Your task to perform on an android device: How big is a blue whale? Image 0: 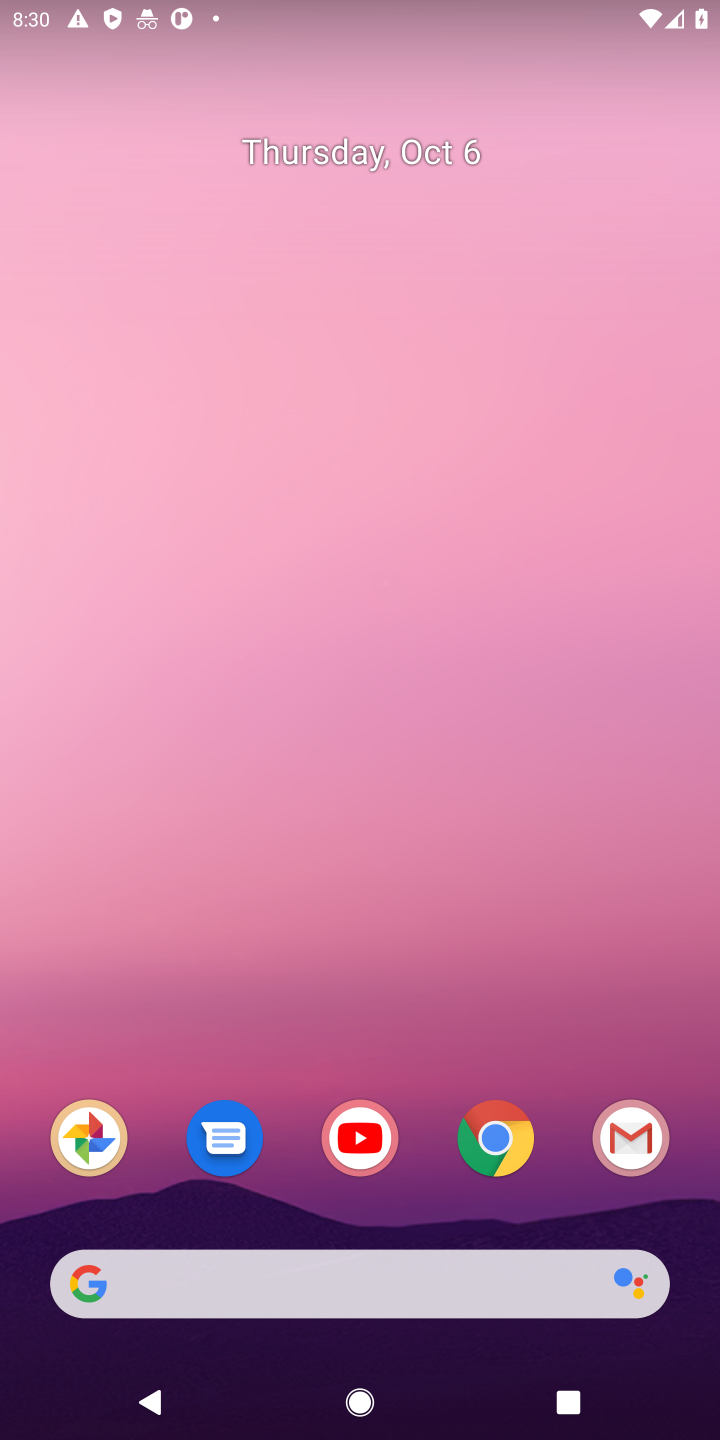
Step 0: click (480, 1136)
Your task to perform on an android device: How big is a blue whale? Image 1: 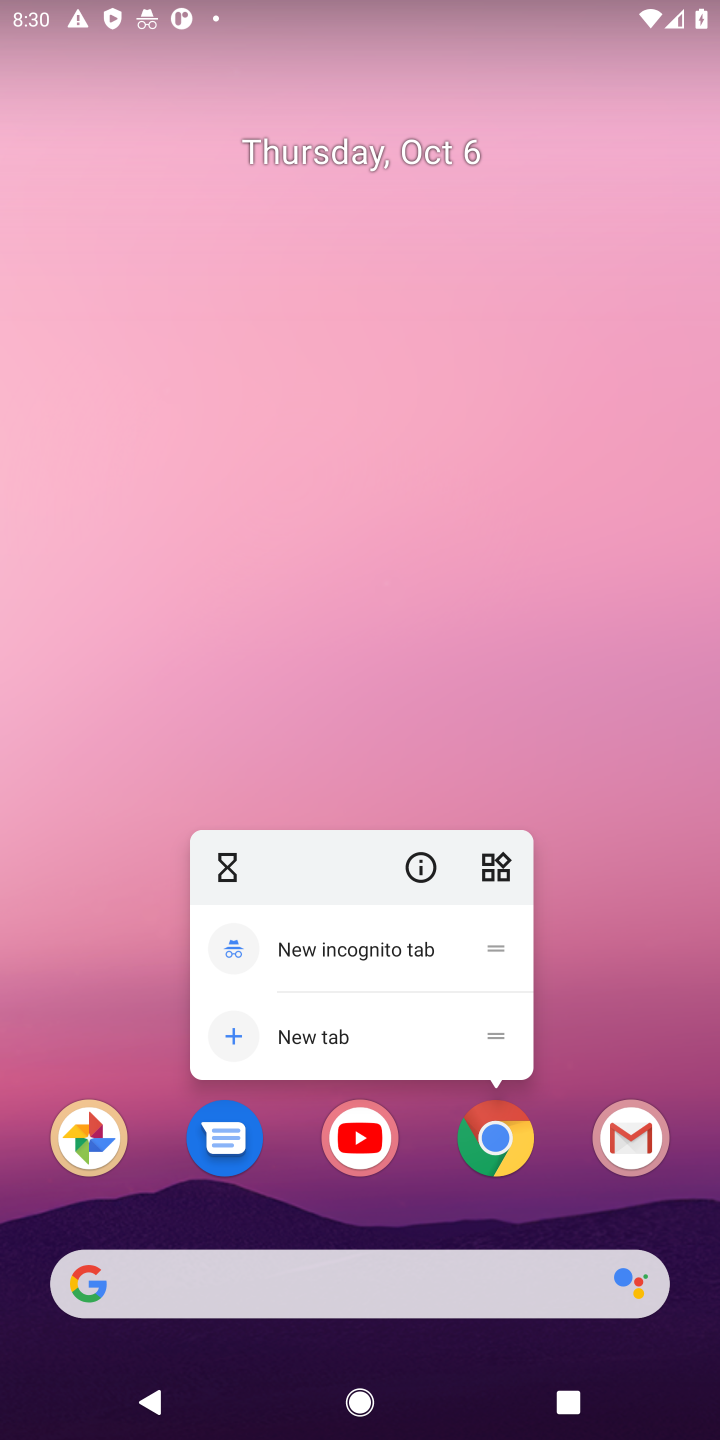
Step 1: click (507, 1146)
Your task to perform on an android device: How big is a blue whale? Image 2: 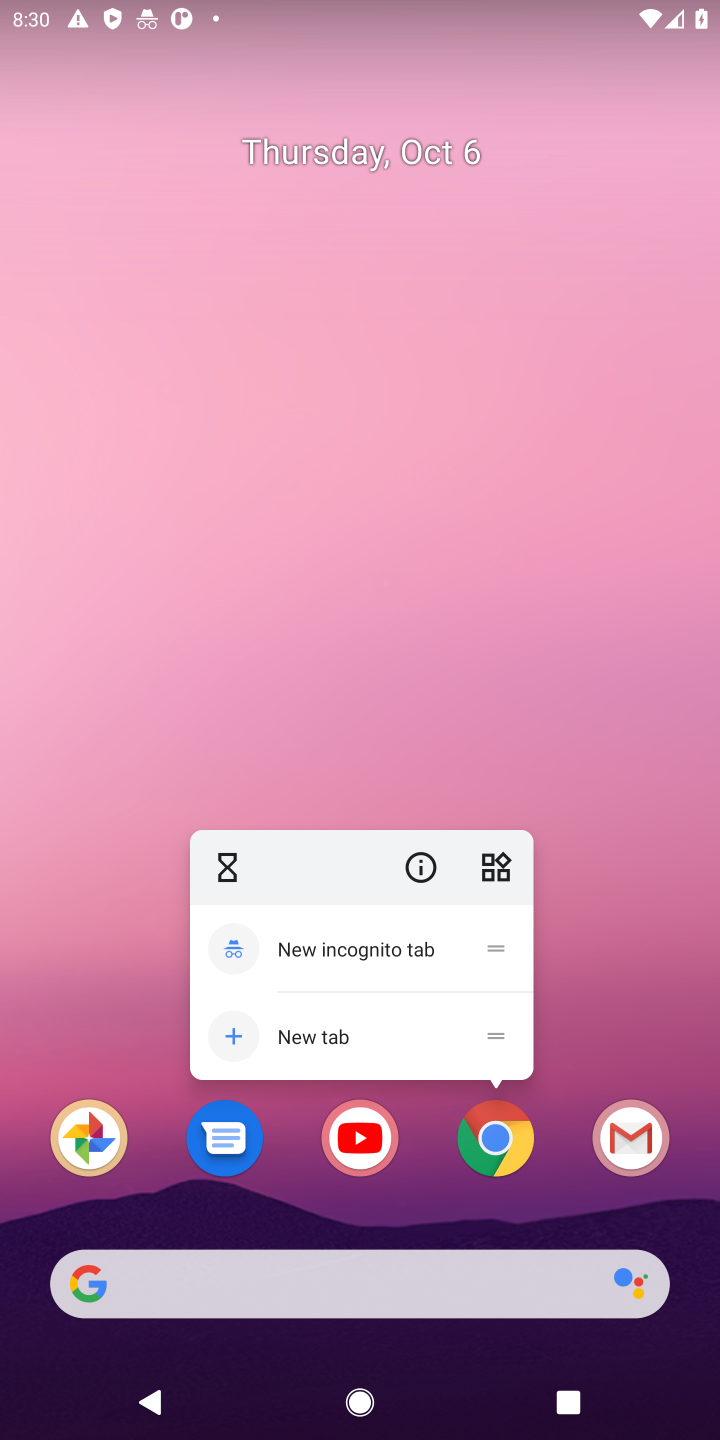
Step 2: click (500, 1139)
Your task to perform on an android device: How big is a blue whale? Image 3: 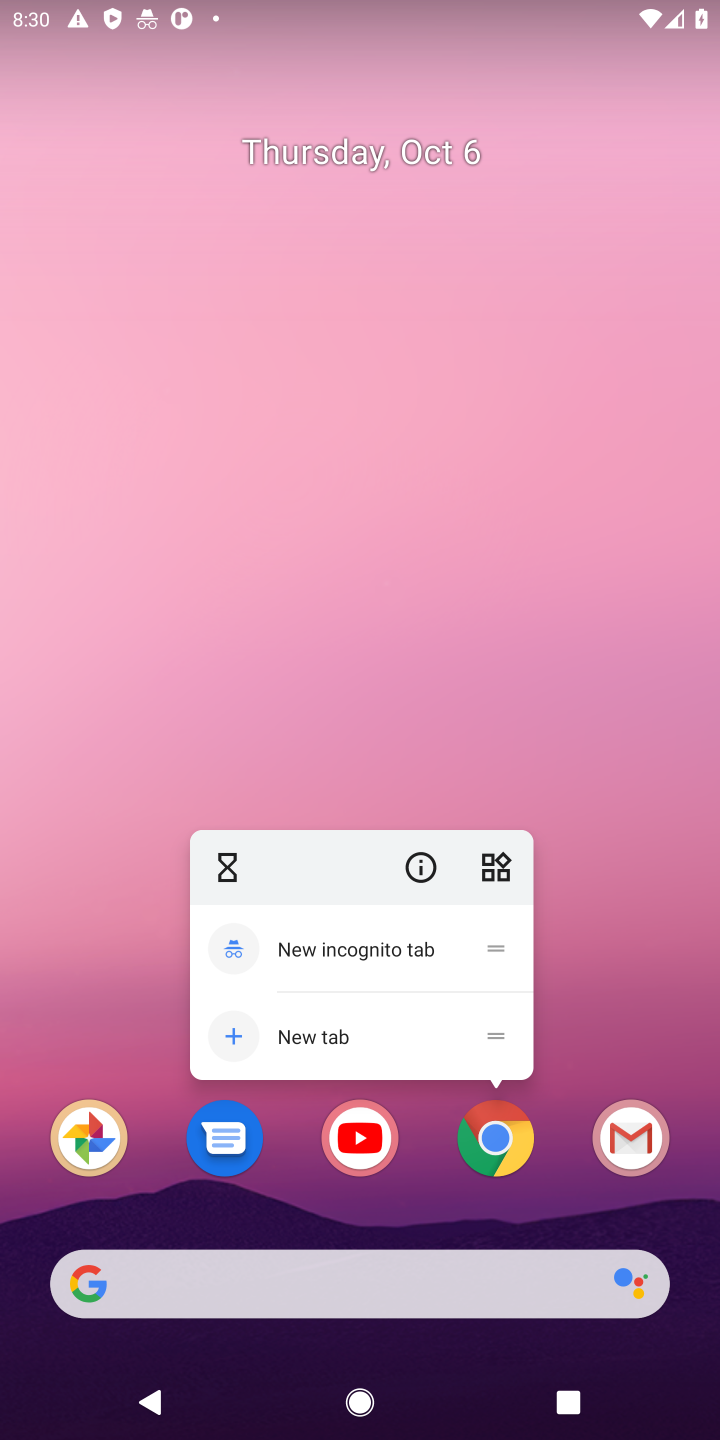
Step 3: click (500, 1139)
Your task to perform on an android device: How big is a blue whale? Image 4: 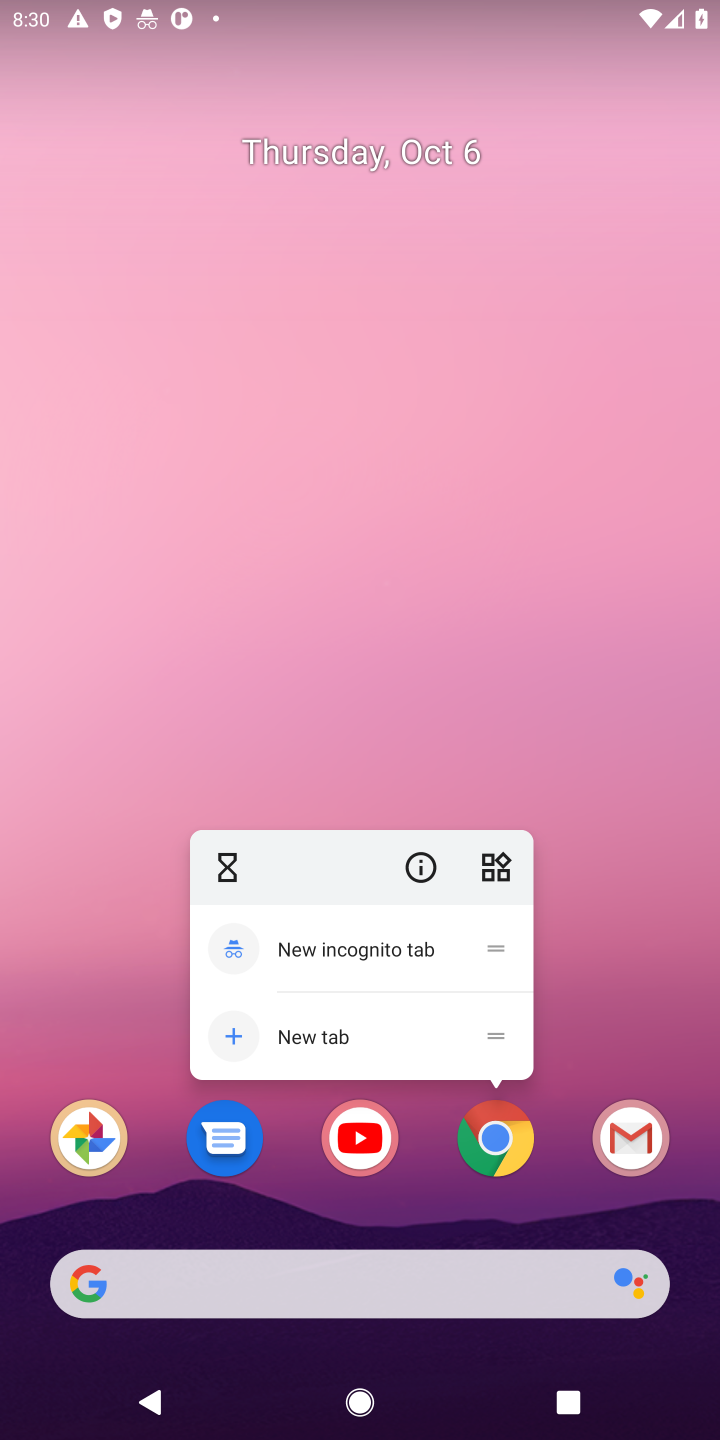
Step 4: click (489, 1141)
Your task to perform on an android device: How big is a blue whale? Image 5: 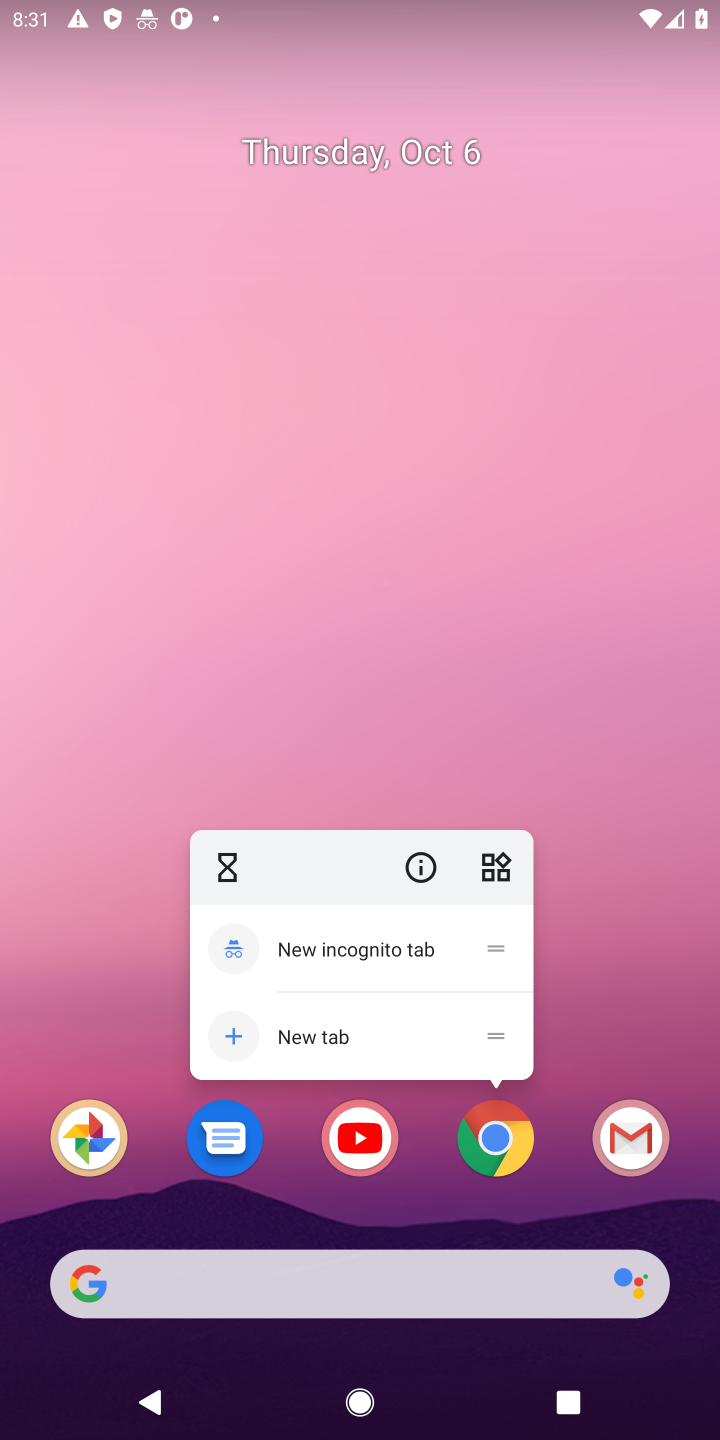
Step 5: click (491, 1147)
Your task to perform on an android device: How big is a blue whale? Image 6: 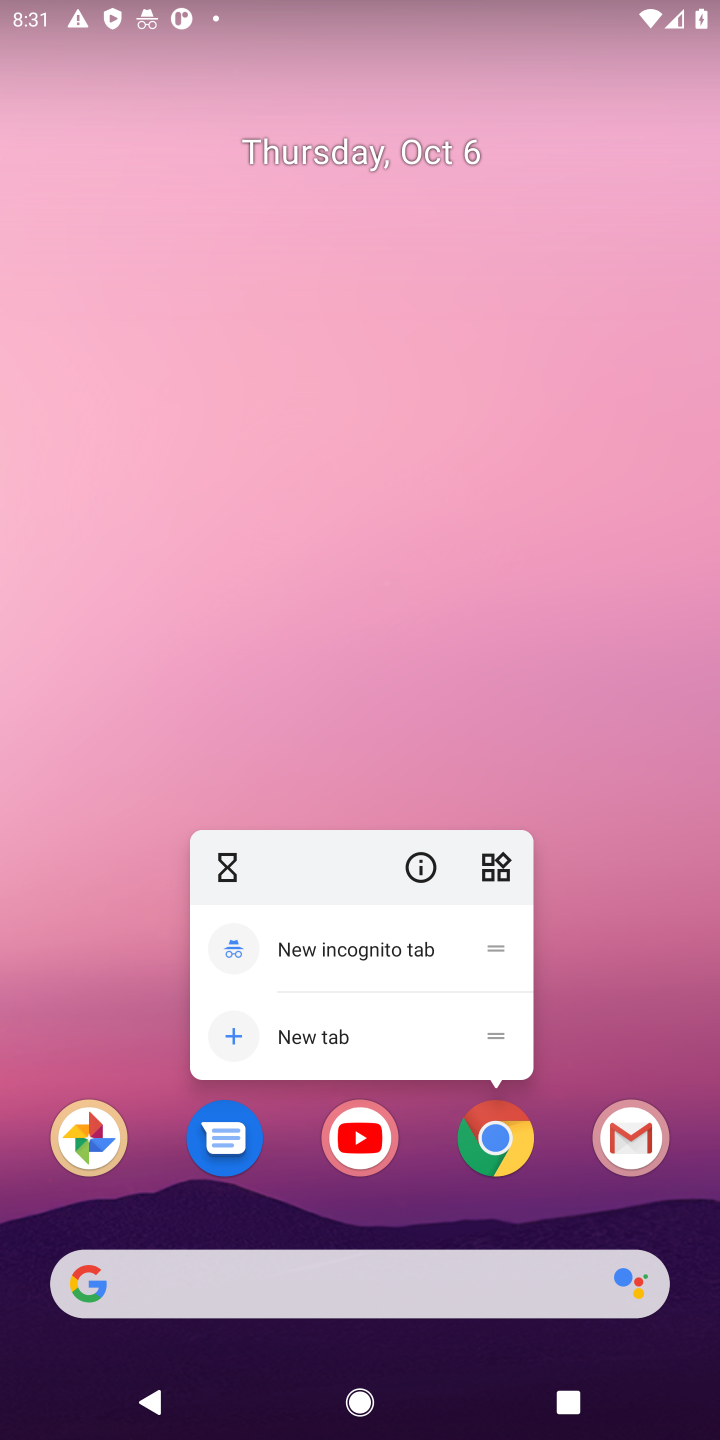
Step 6: click (511, 1129)
Your task to perform on an android device: How big is a blue whale? Image 7: 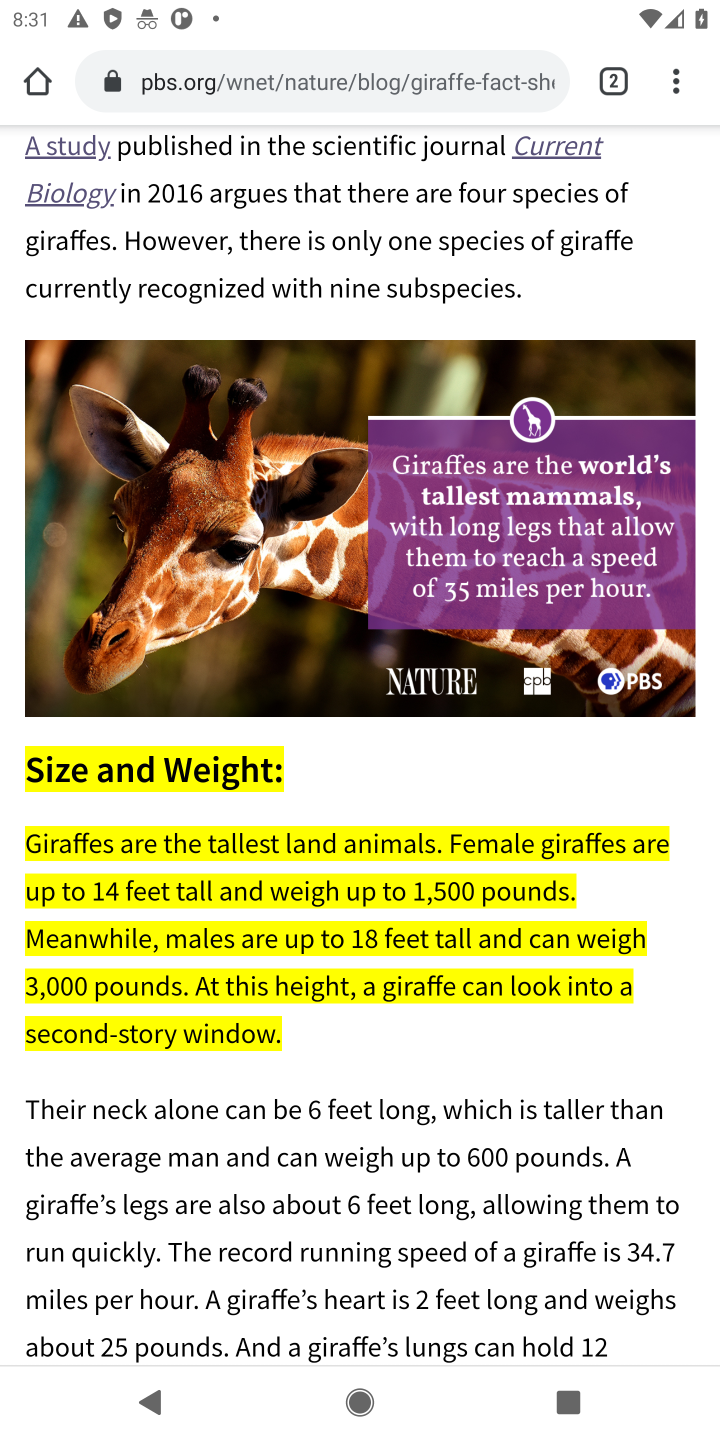
Step 7: click (446, 91)
Your task to perform on an android device: How big is a blue whale? Image 8: 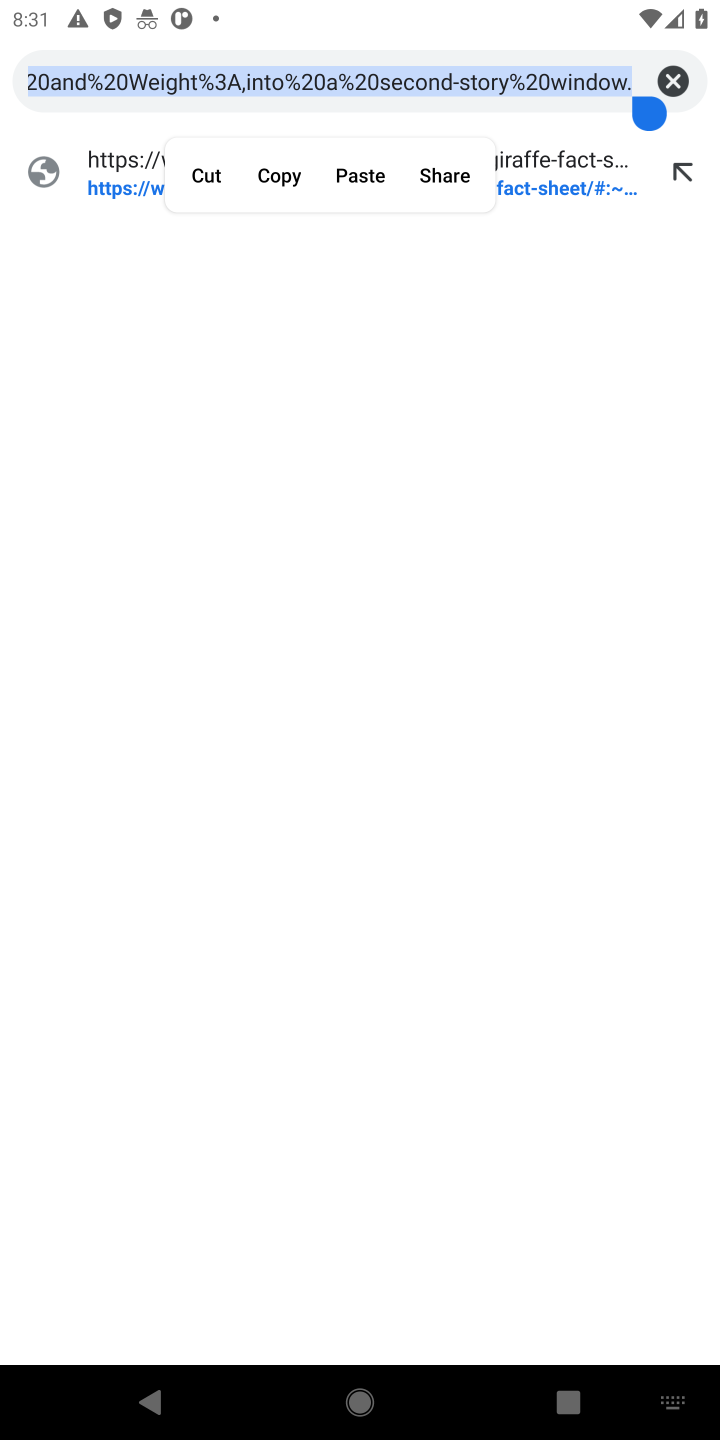
Step 8: click (677, 81)
Your task to perform on an android device: How big is a blue whale? Image 9: 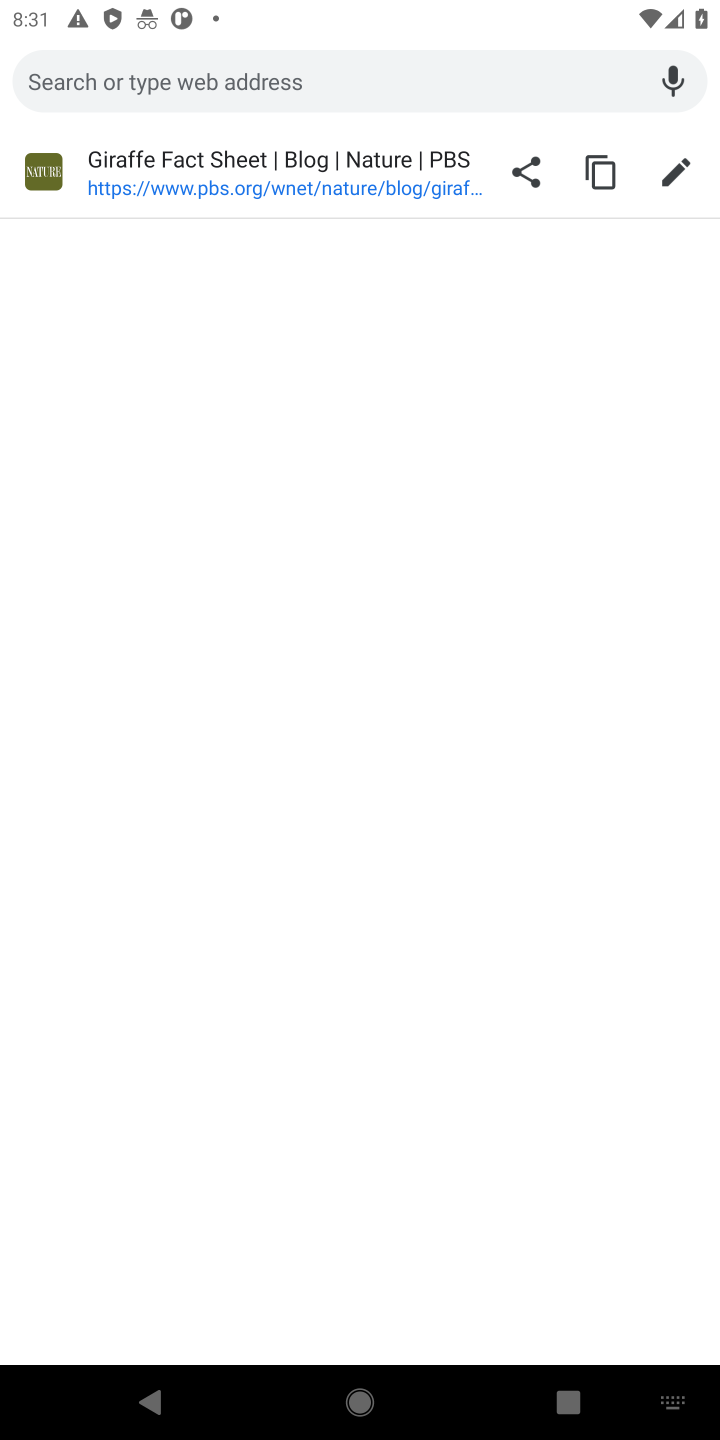
Step 9: type "How big is a blue whale"
Your task to perform on an android device: How big is a blue whale? Image 10: 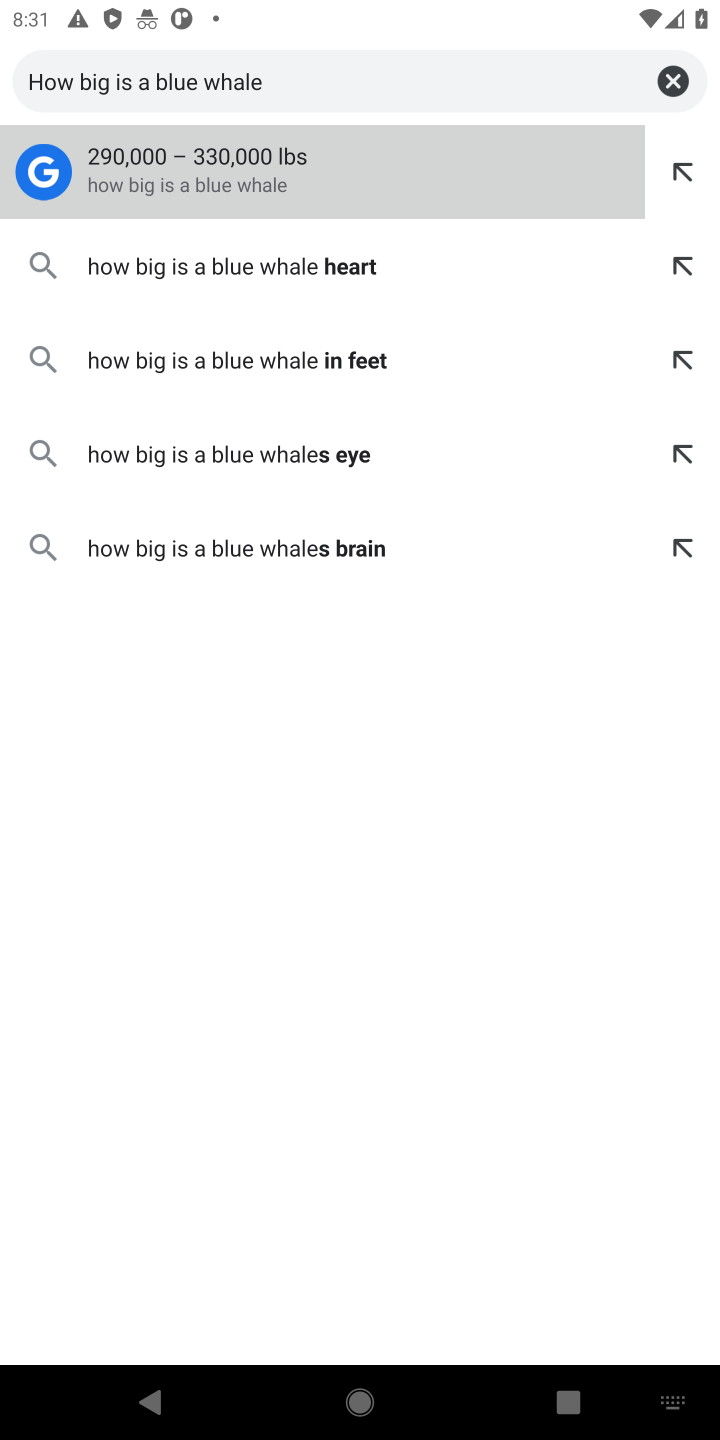
Step 10: click (349, 179)
Your task to perform on an android device: How big is a blue whale? Image 11: 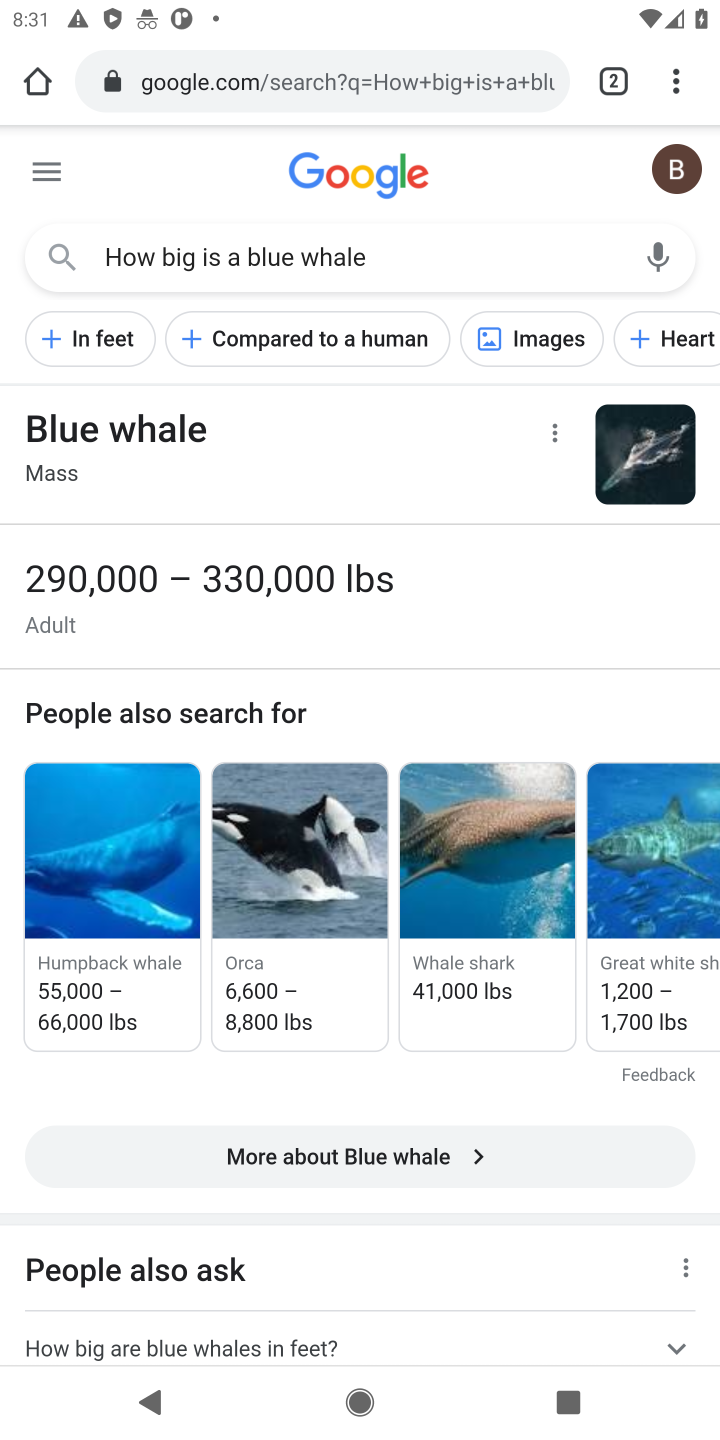
Step 11: drag from (375, 1263) to (566, 165)
Your task to perform on an android device: How big is a blue whale? Image 12: 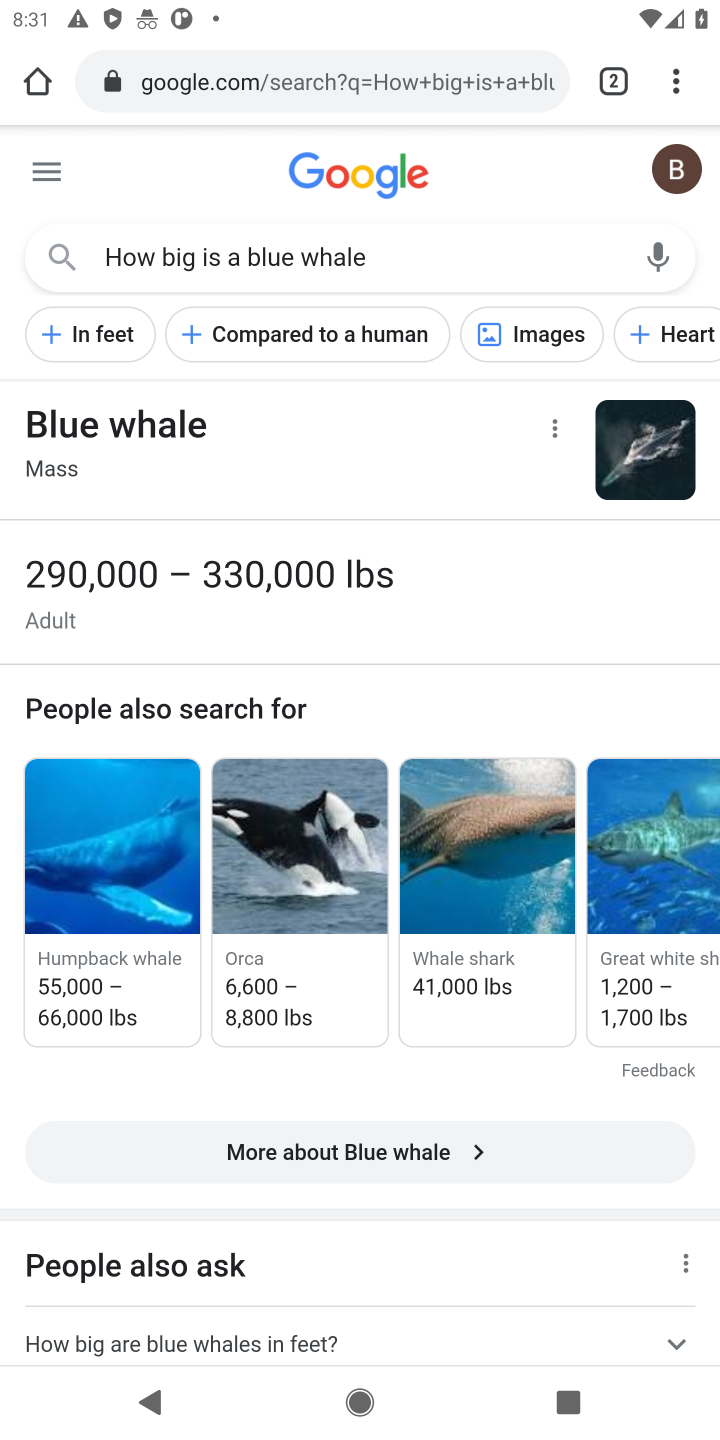
Step 12: drag from (392, 1263) to (529, 285)
Your task to perform on an android device: How big is a blue whale? Image 13: 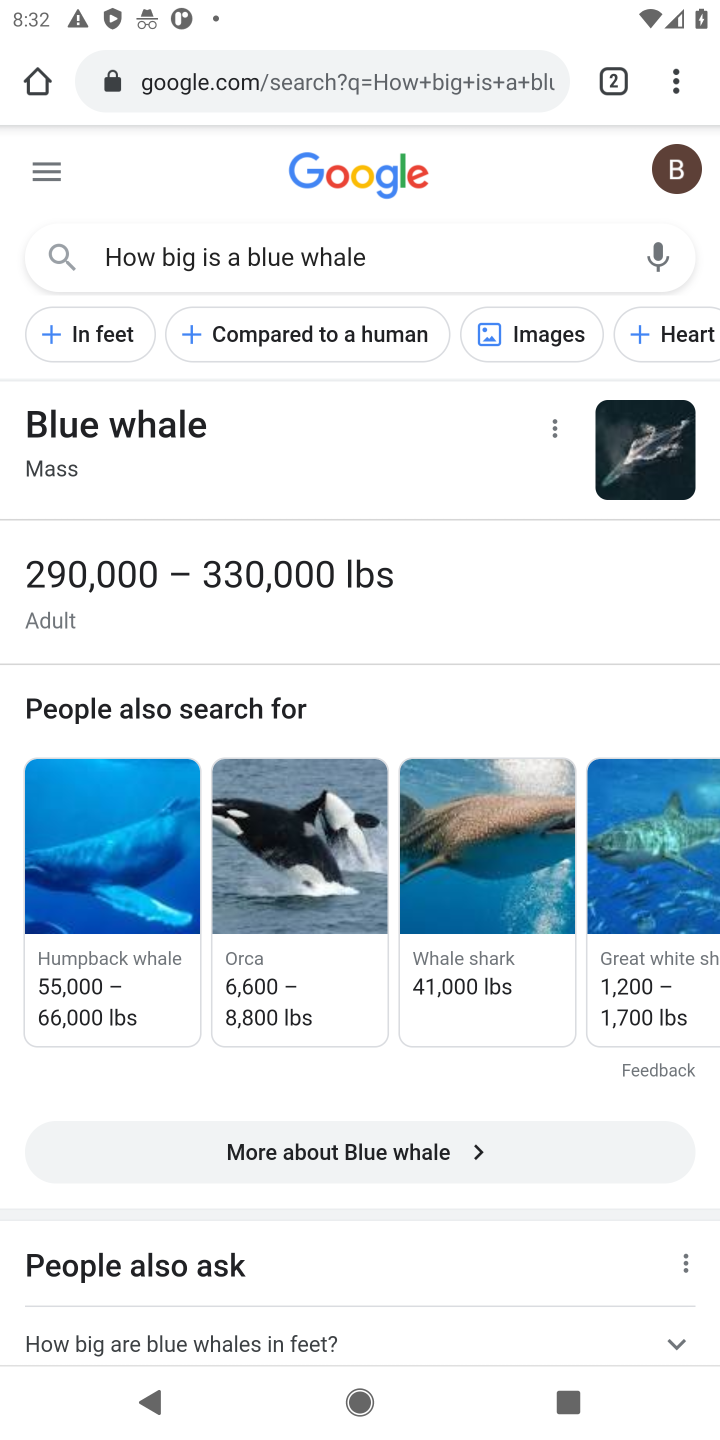
Step 13: drag from (101, 1066) to (491, 178)
Your task to perform on an android device: How big is a blue whale? Image 14: 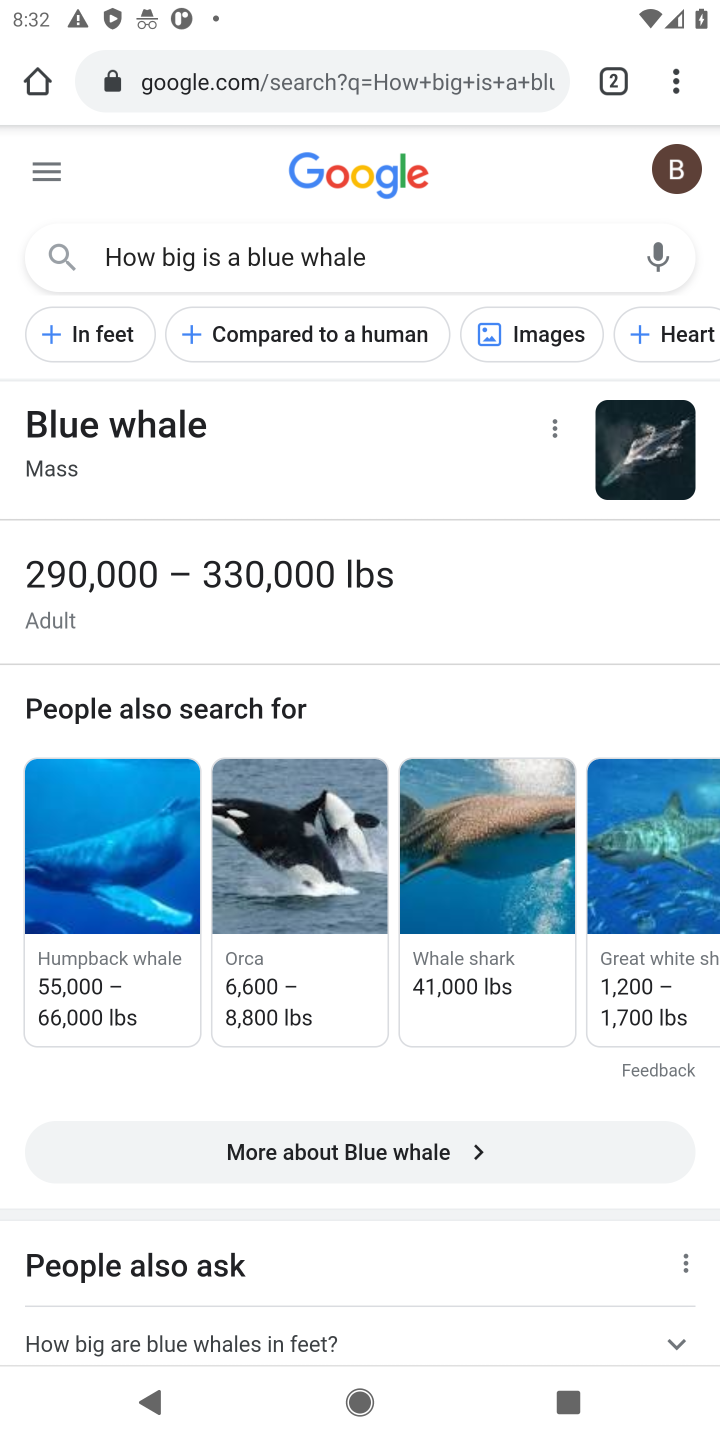
Step 14: drag from (459, 820) to (552, 435)
Your task to perform on an android device: How big is a blue whale? Image 15: 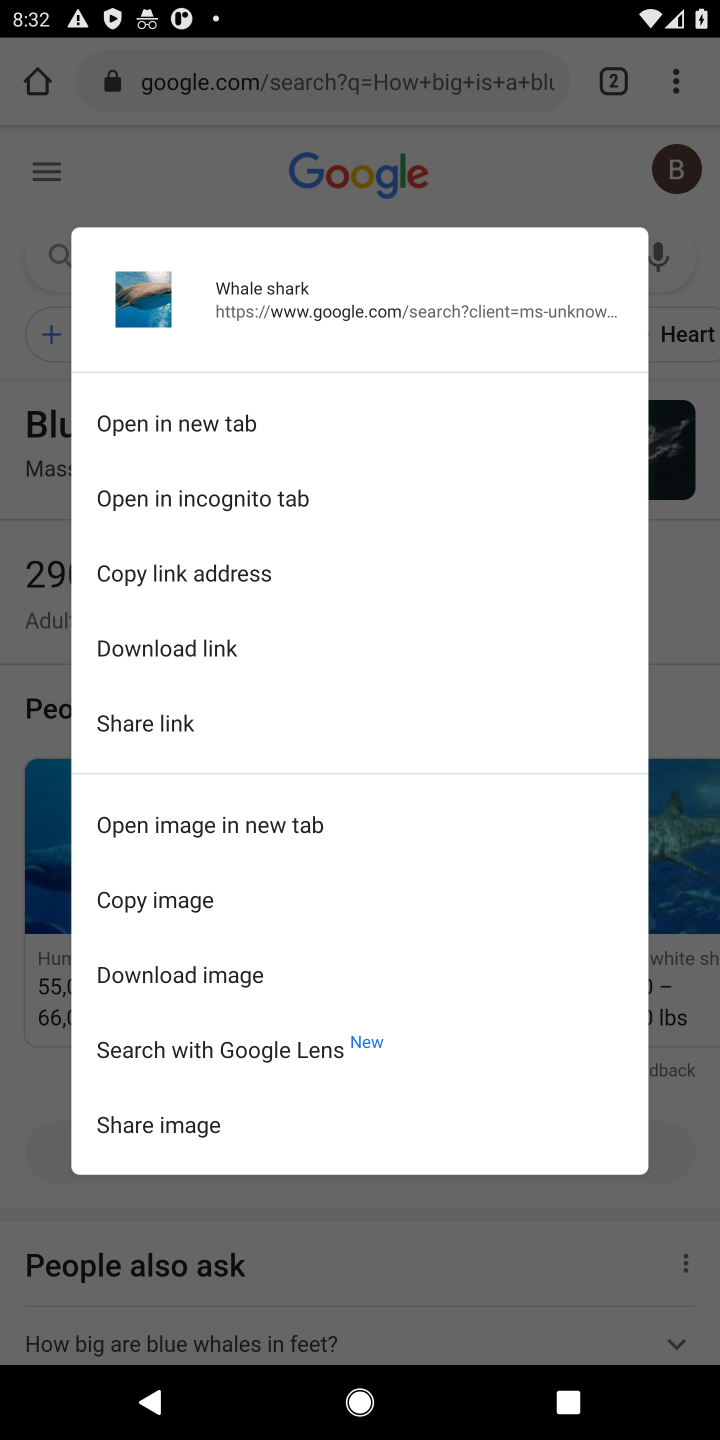
Step 15: click (698, 704)
Your task to perform on an android device: How big is a blue whale? Image 16: 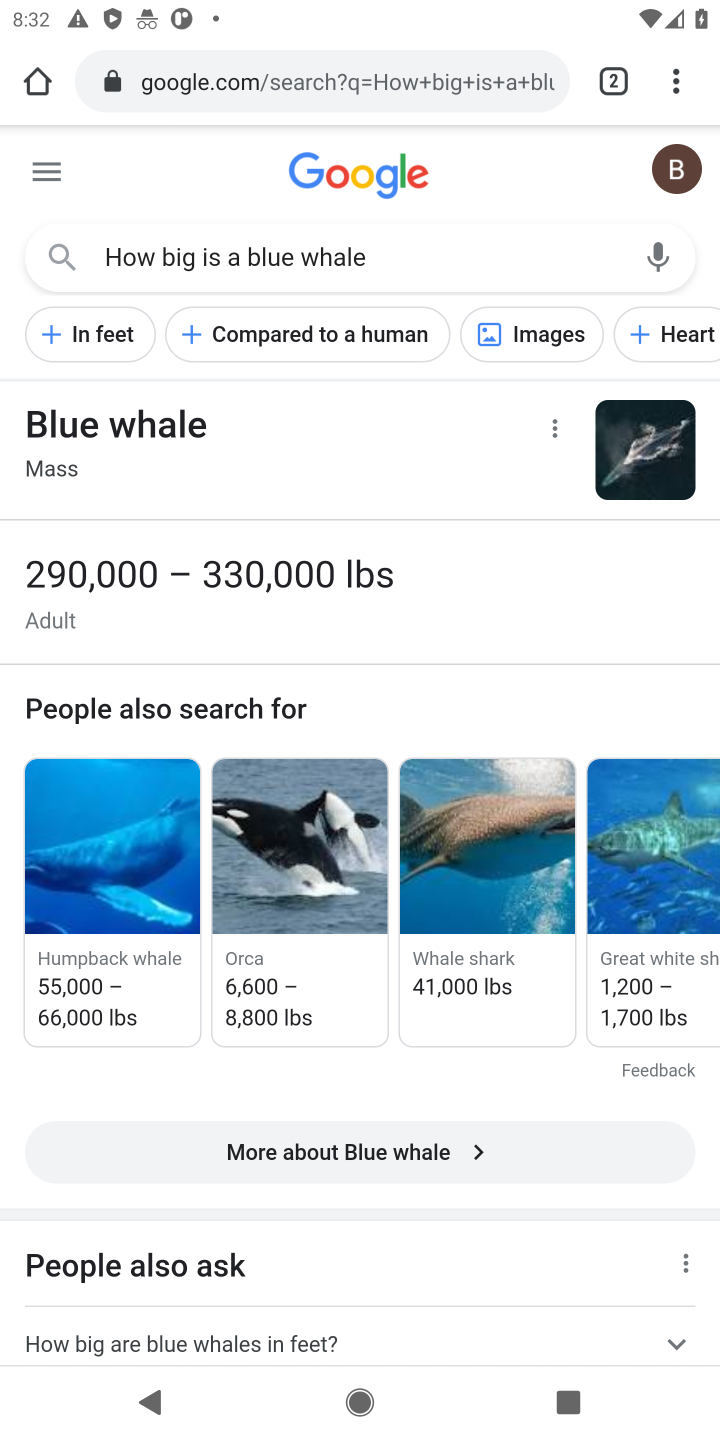
Step 16: drag from (329, 1036) to (596, 215)
Your task to perform on an android device: How big is a blue whale? Image 17: 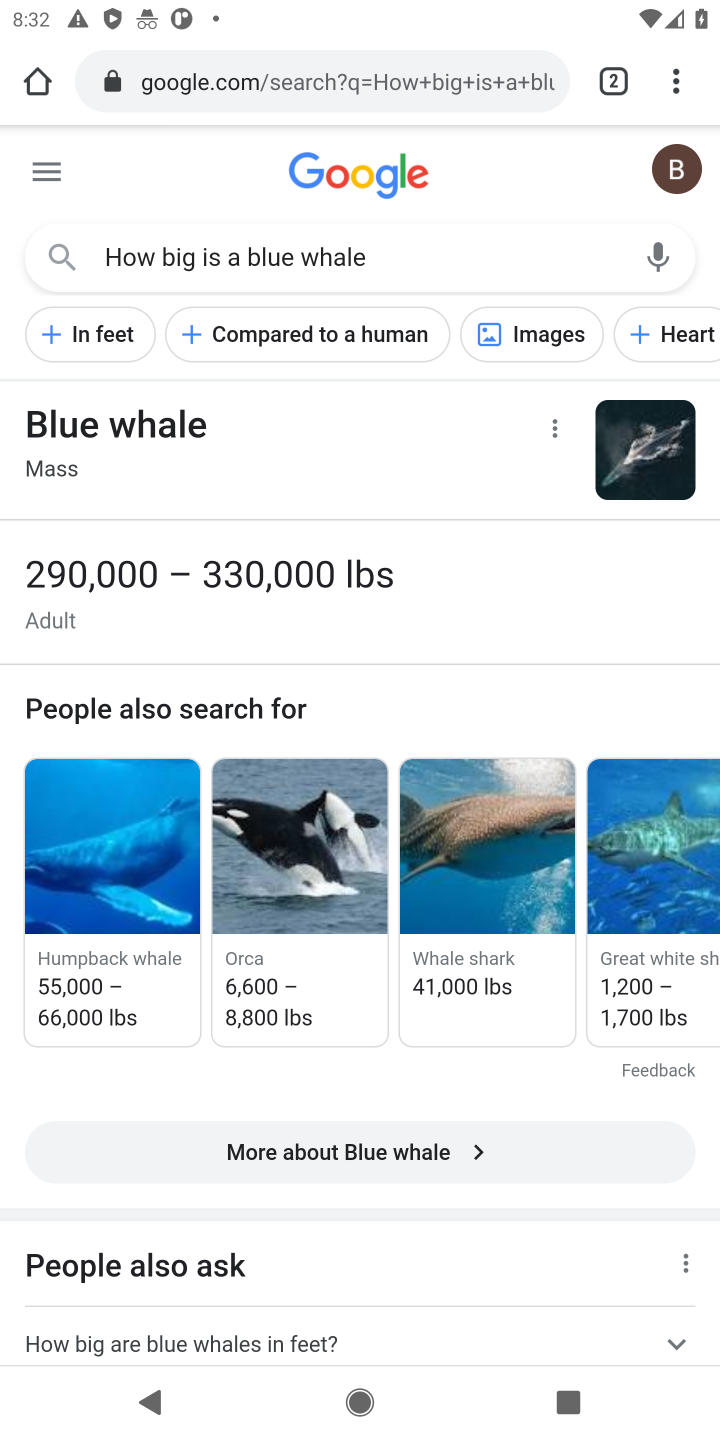
Step 17: click (222, 580)
Your task to perform on an android device: How big is a blue whale? Image 18: 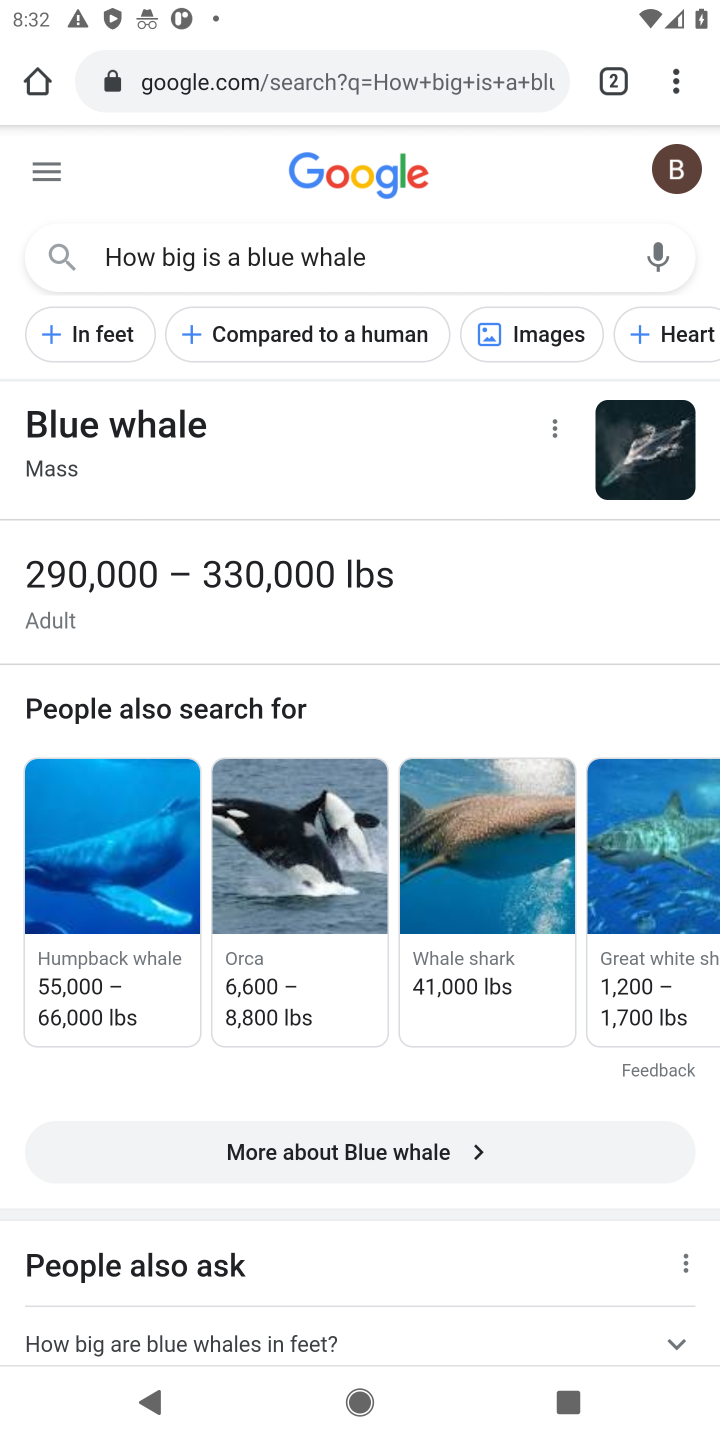
Step 18: task complete